Your task to perform on an android device: Open sound settings Image 0: 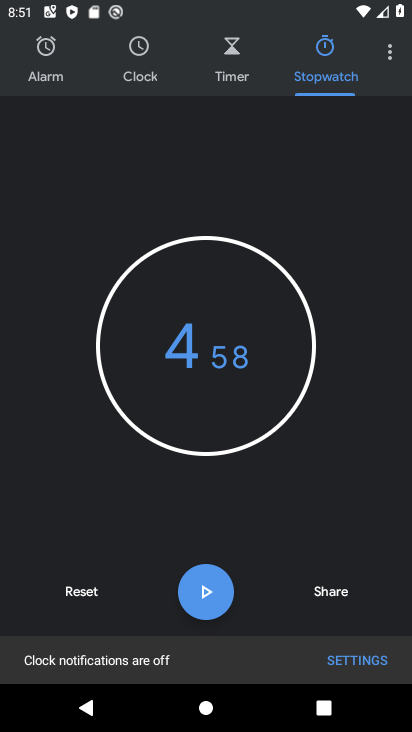
Step 0: press home button
Your task to perform on an android device: Open sound settings Image 1: 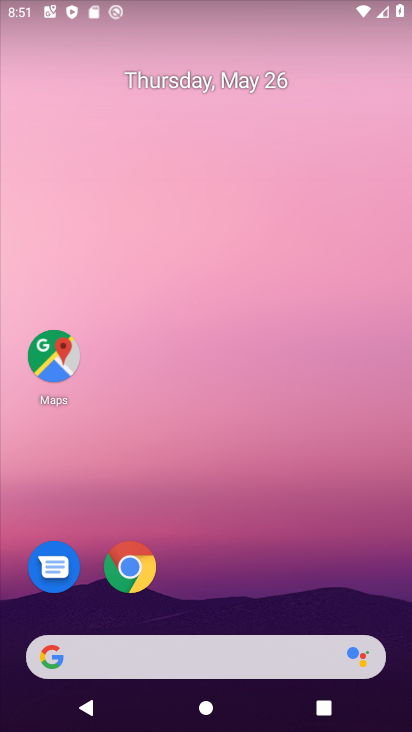
Step 1: drag from (140, 656) to (304, 165)
Your task to perform on an android device: Open sound settings Image 2: 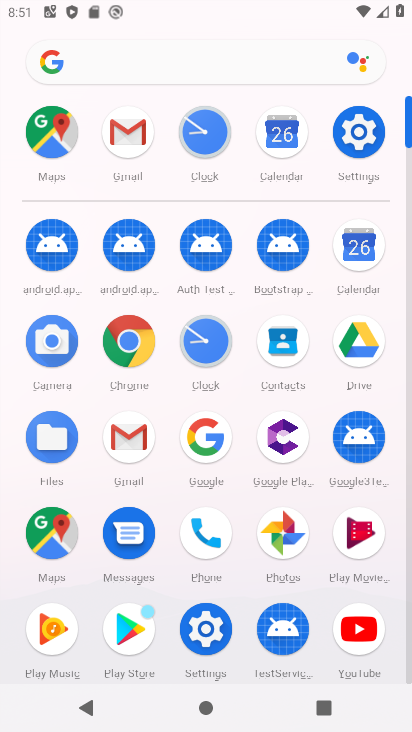
Step 2: click (357, 143)
Your task to perform on an android device: Open sound settings Image 3: 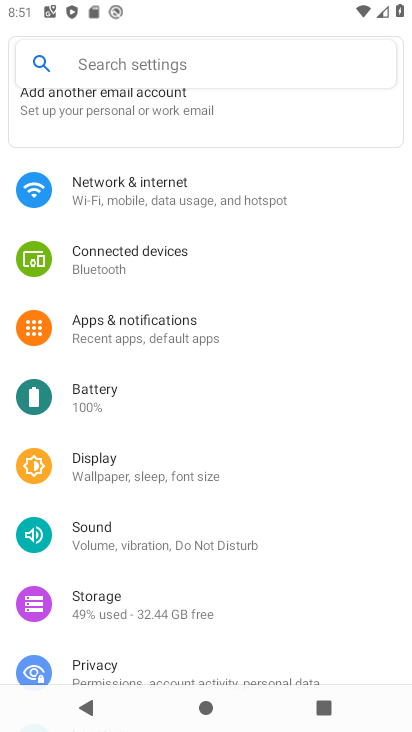
Step 3: click (97, 530)
Your task to perform on an android device: Open sound settings Image 4: 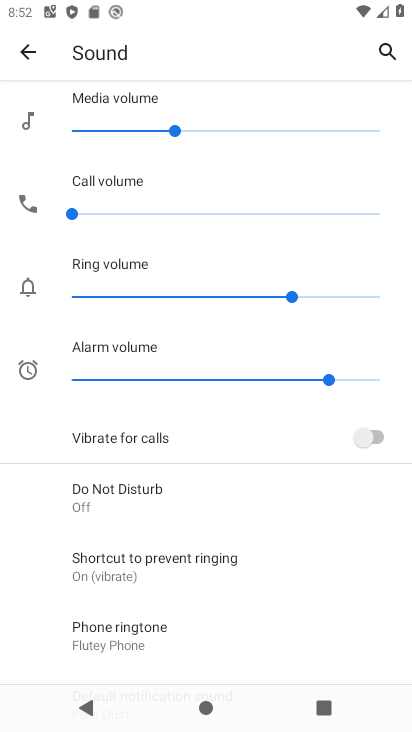
Step 4: task complete